Your task to perform on an android device: Is it going to rain today? Image 0: 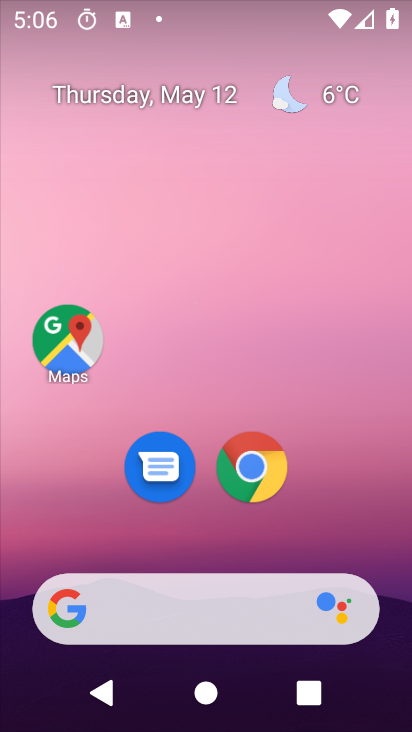
Step 0: drag from (303, 588) to (316, 58)
Your task to perform on an android device: Is it going to rain today? Image 1: 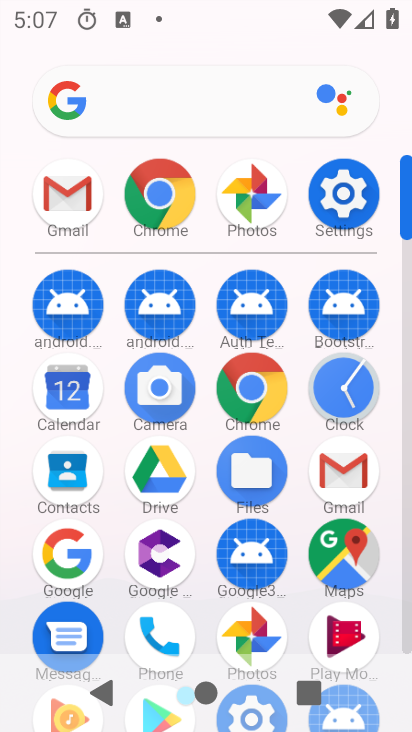
Step 1: click (244, 394)
Your task to perform on an android device: Is it going to rain today? Image 2: 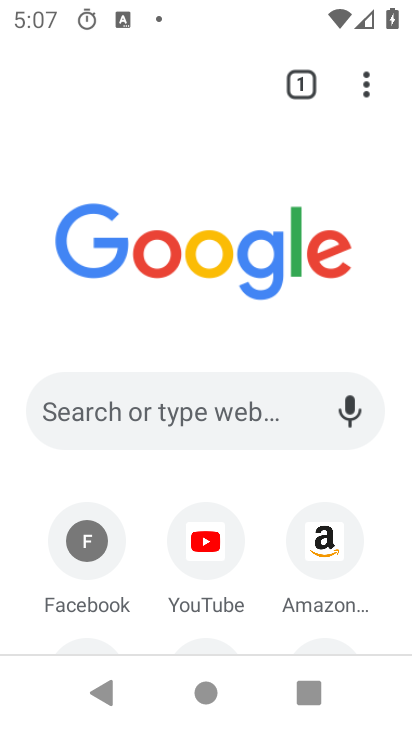
Step 2: click (292, 398)
Your task to perform on an android device: Is it going to rain today? Image 3: 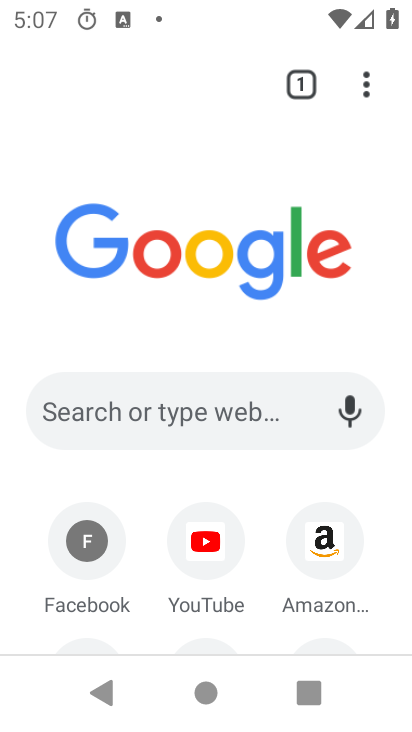
Step 3: click (295, 397)
Your task to perform on an android device: Is it going to rain today? Image 4: 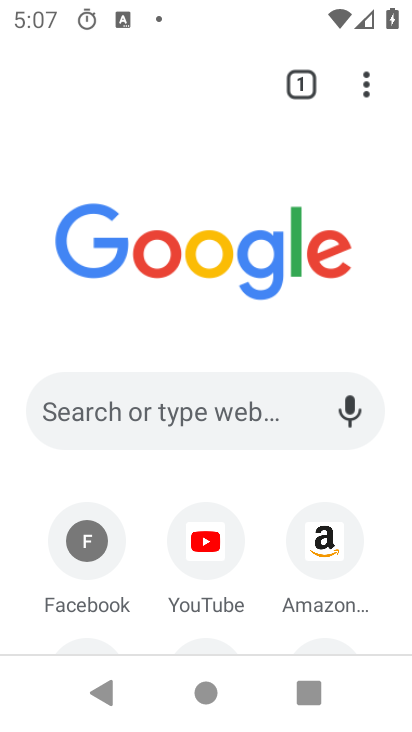
Step 4: click (223, 412)
Your task to perform on an android device: Is it going to rain today? Image 5: 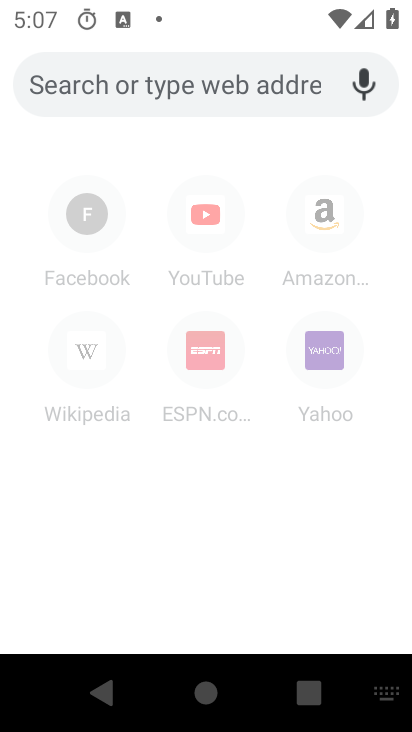
Step 5: type "is it going to rain today"
Your task to perform on an android device: Is it going to rain today? Image 6: 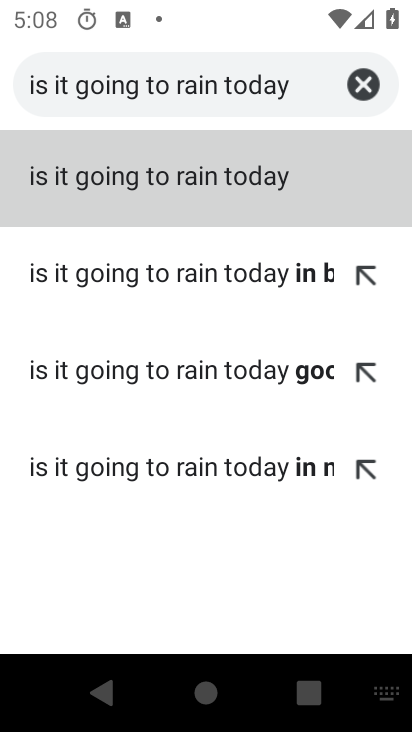
Step 6: click (255, 171)
Your task to perform on an android device: Is it going to rain today? Image 7: 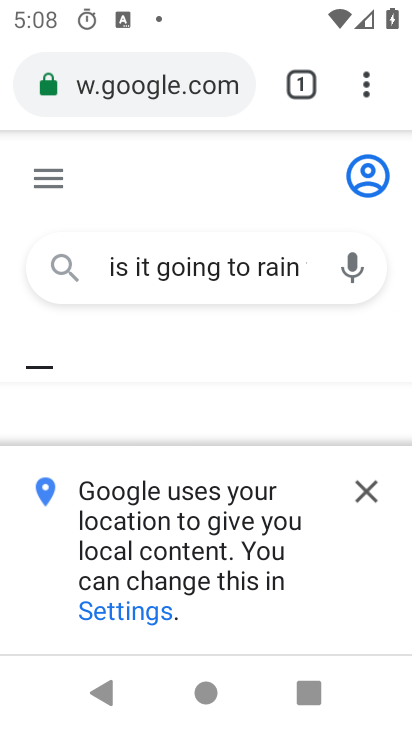
Step 7: task complete